Your task to perform on an android device: turn off smart reply in the gmail app Image 0: 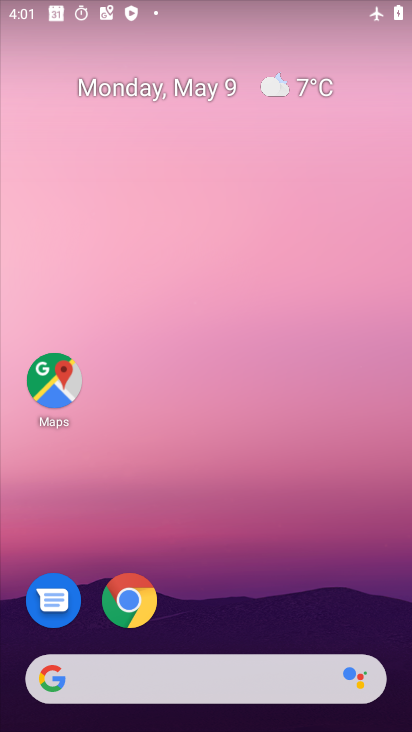
Step 0: drag from (277, 612) to (179, 183)
Your task to perform on an android device: turn off smart reply in the gmail app Image 1: 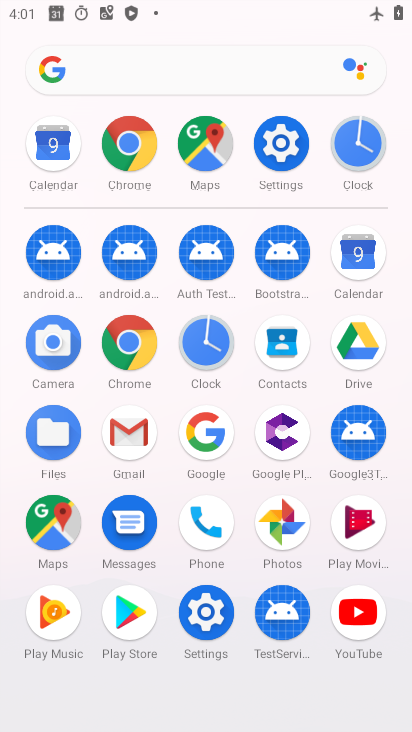
Step 1: drag from (312, 564) to (268, 236)
Your task to perform on an android device: turn off smart reply in the gmail app Image 2: 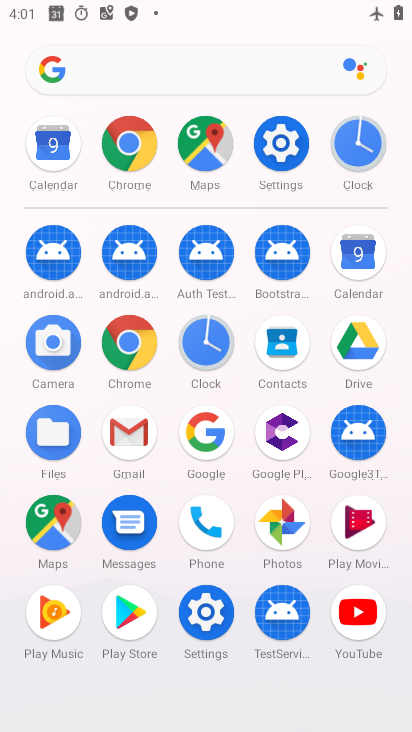
Step 2: drag from (257, 257) to (293, 567)
Your task to perform on an android device: turn off smart reply in the gmail app Image 3: 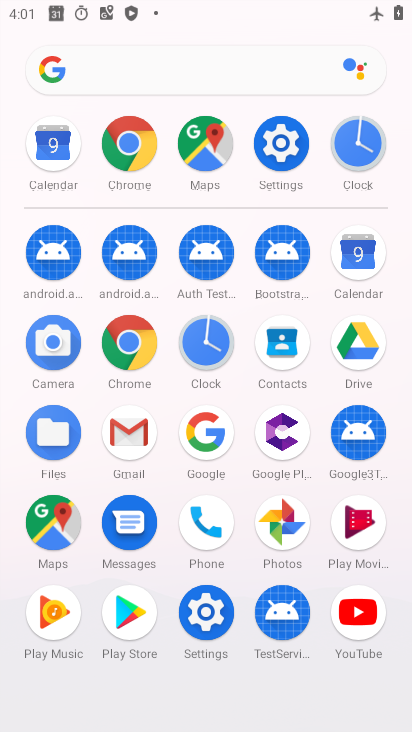
Step 3: drag from (288, 558) to (289, 271)
Your task to perform on an android device: turn off smart reply in the gmail app Image 4: 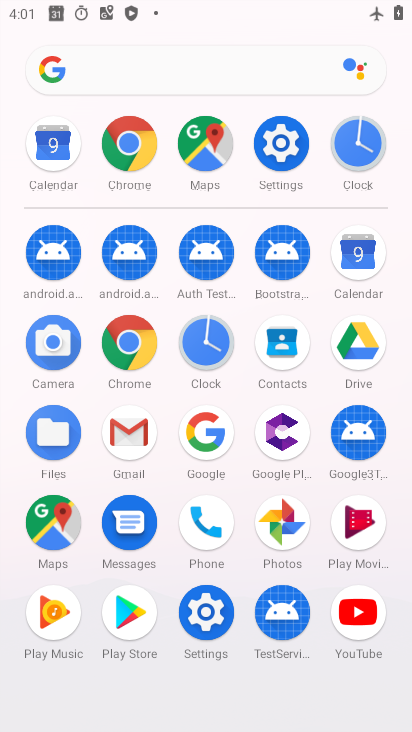
Step 4: click (125, 446)
Your task to perform on an android device: turn off smart reply in the gmail app Image 5: 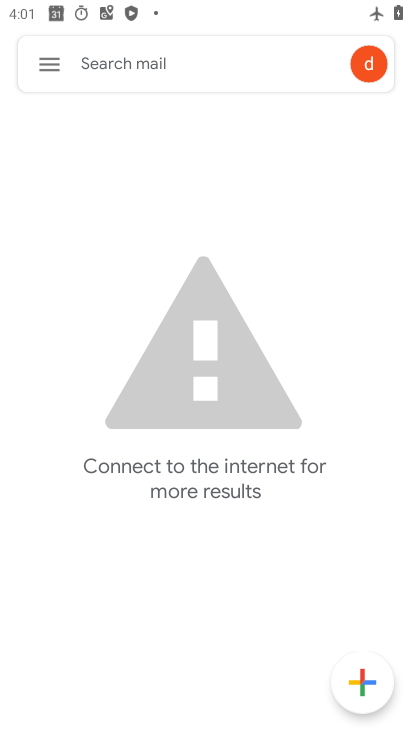
Step 5: click (52, 68)
Your task to perform on an android device: turn off smart reply in the gmail app Image 6: 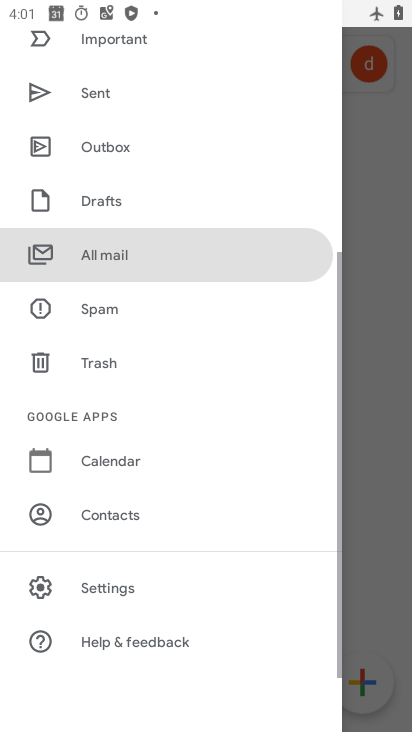
Step 6: click (117, 572)
Your task to perform on an android device: turn off smart reply in the gmail app Image 7: 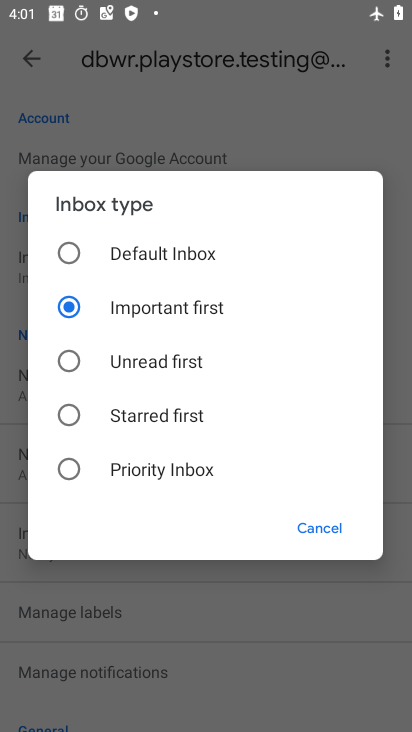
Step 7: click (309, 529)
Your task to perform on an android device: turn off smart reply in the gmail app Image 8: 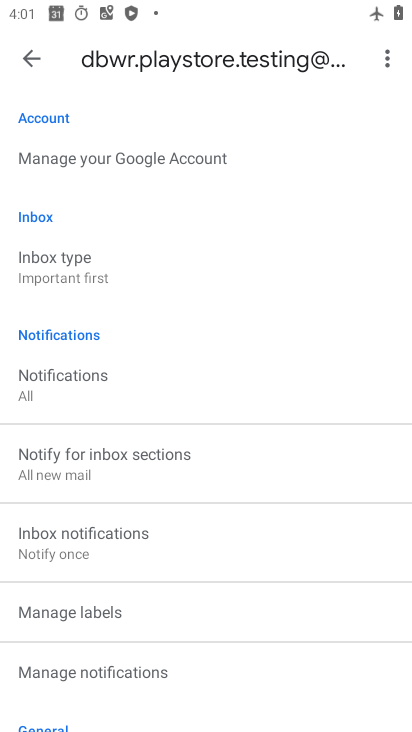
Step 8: drag from (271, 616) to (246, 35)
Your task to perform on an android device: turn off smart reply in the gmail app Image 9: 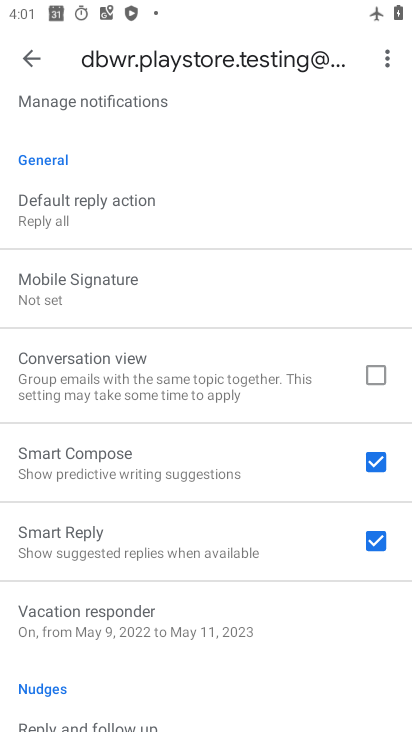
Step 9: click (371, 537)
Your task to perform on an android device: turn off smart reply in the gmail app Image 10: 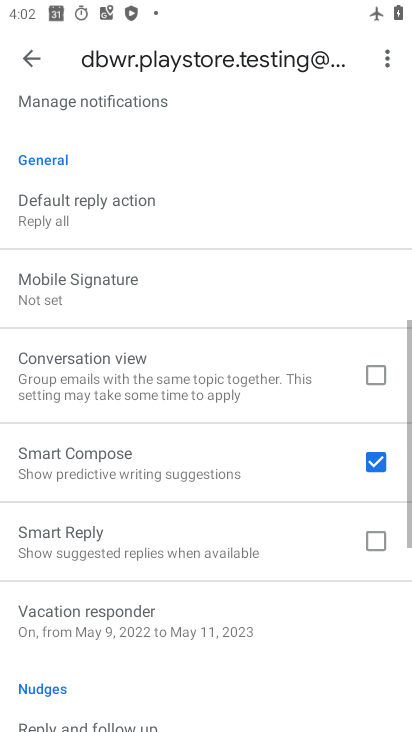
Step 10: task complete